Your task to perform on an android device: Open Wikipedia Image 0: 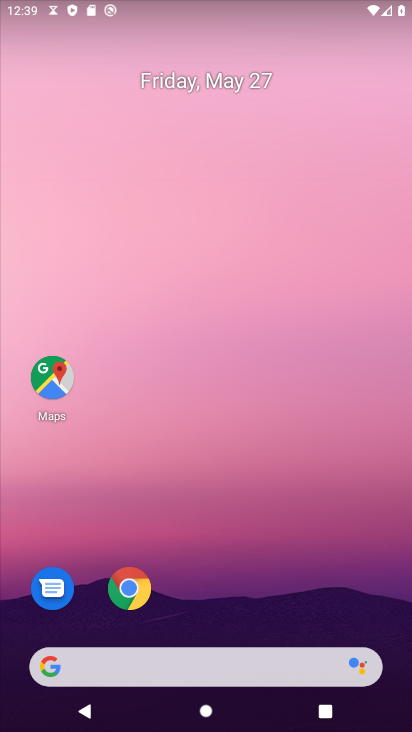
Step 0: click (125, 582)
Your task to perform on an android device: Open Wikipedia Image 1: 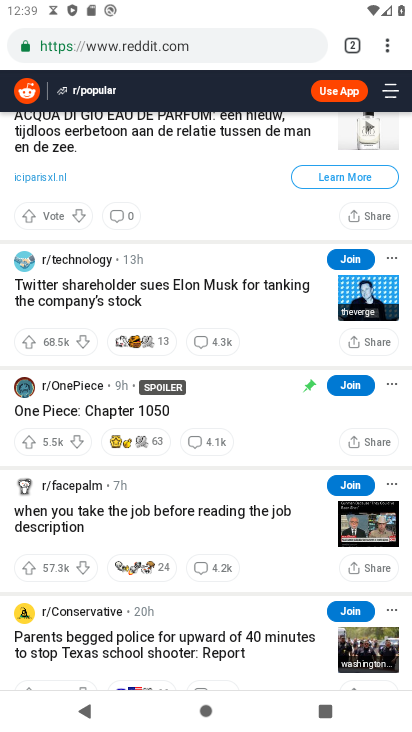
Step 1: click (350, 40)
Your task to perform on an android device: Open Wikipedia Image 2: 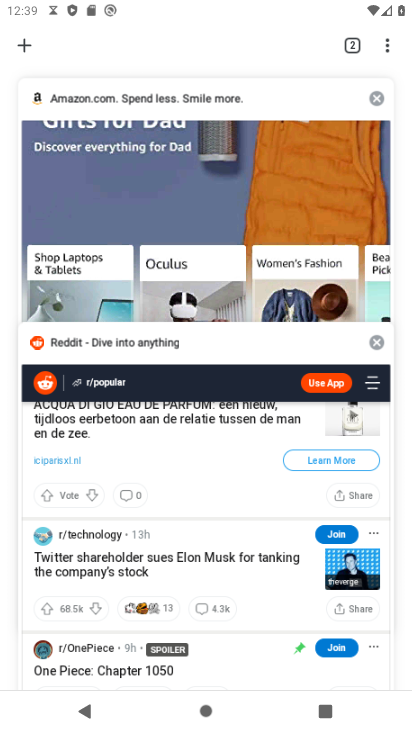
Step 2: click (374, 94)
Your task to perform on an android device: Open Wikipedia Image 3: 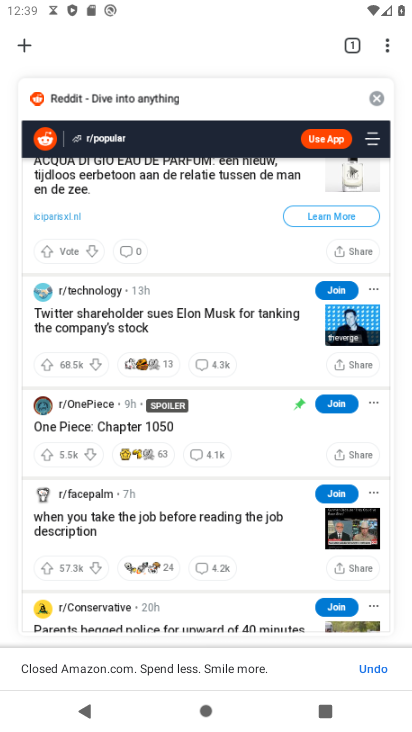
Step 3: click (375, 97)
Your task to perform on an android device: Open Wikipedia Image 4: 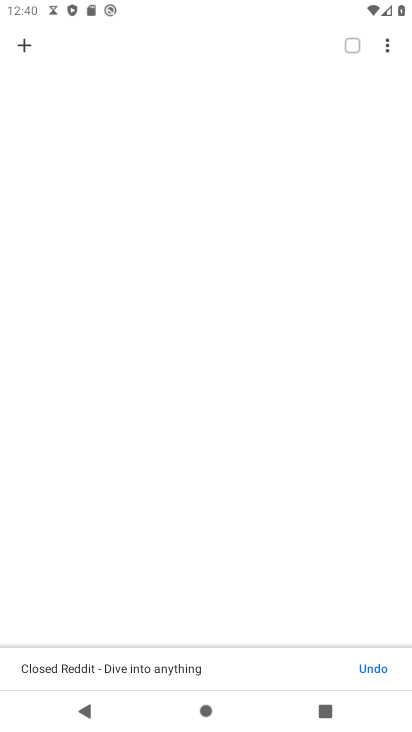
Step 4: click (32, 45)
Your task to perform on an android device: Open Wikipedia Image 5: 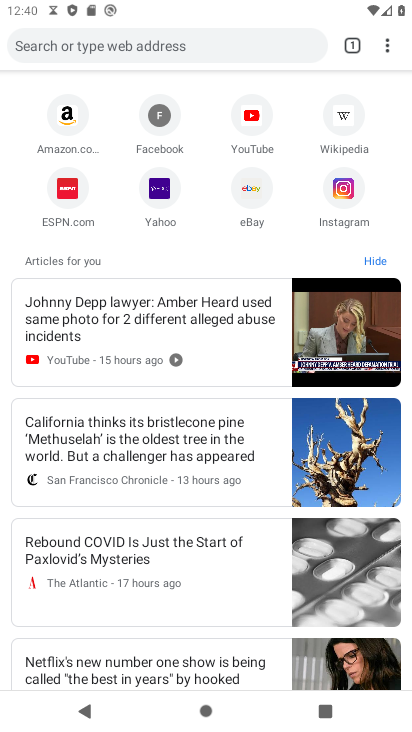
Step 5: click (346, 109)
Your task to perform on an android device: Open Wikipedia Image 6: 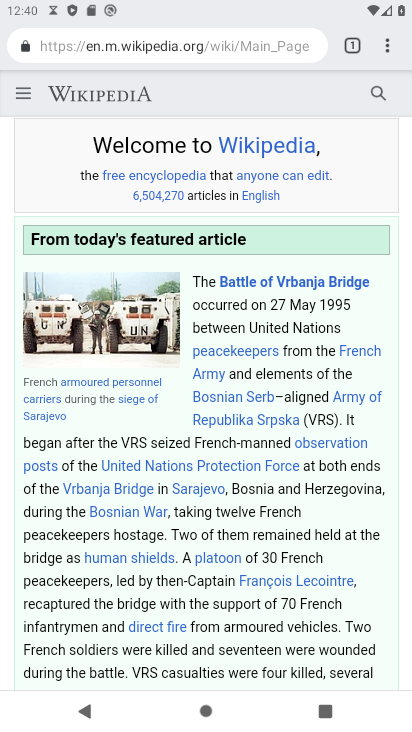
Step 6: task complete